Your task to perform on an android device: turn notification dots off Image 0: 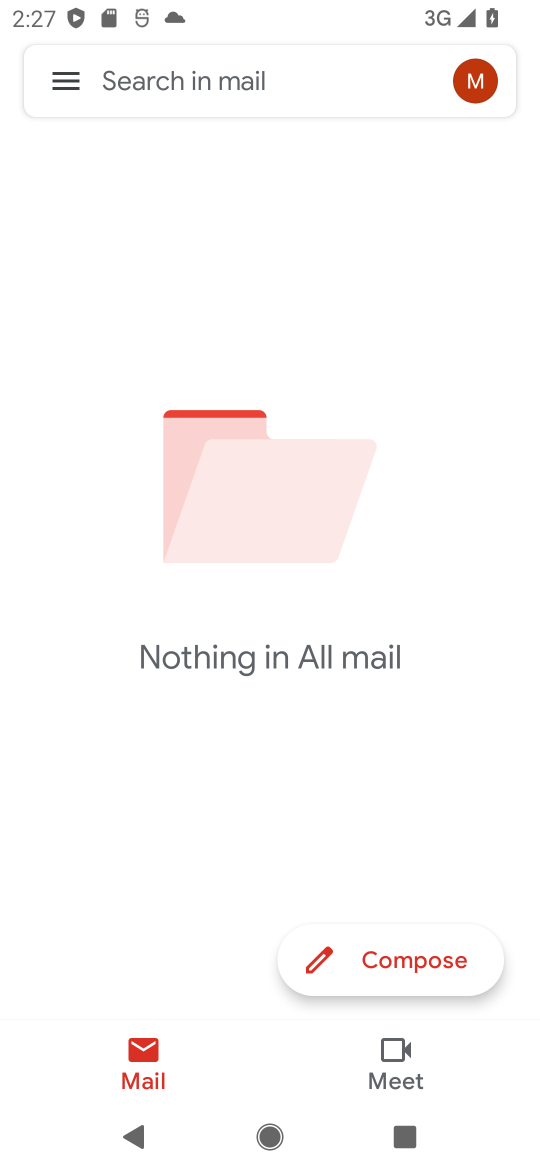
Step 0: press home button
Your task to perform on an android device: turn notification dots off Image 1: 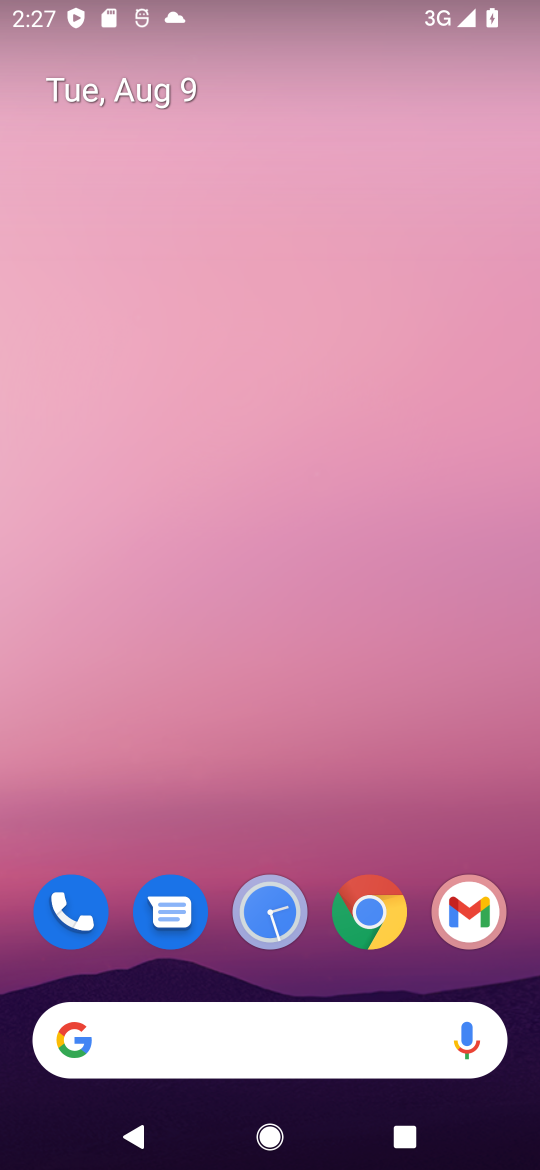
Step 1: drag from (307, 814) to (255, 14)
Your task to perform on an android device: turn notification dots off Image 2: 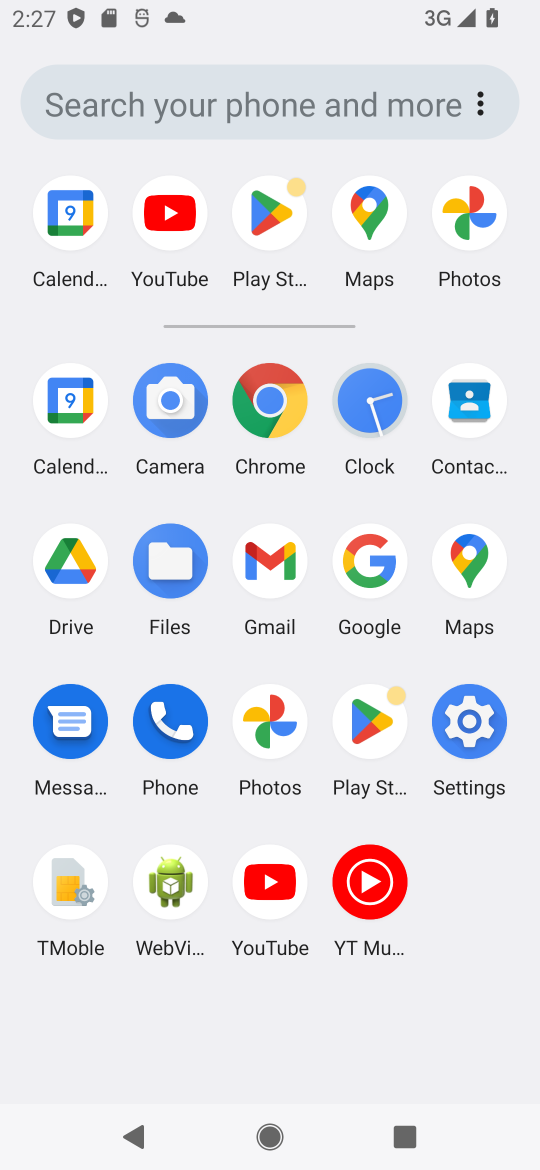
Step 2: click (468, 711)
Your task to perform on an android device: turn notification dots off Image 3: 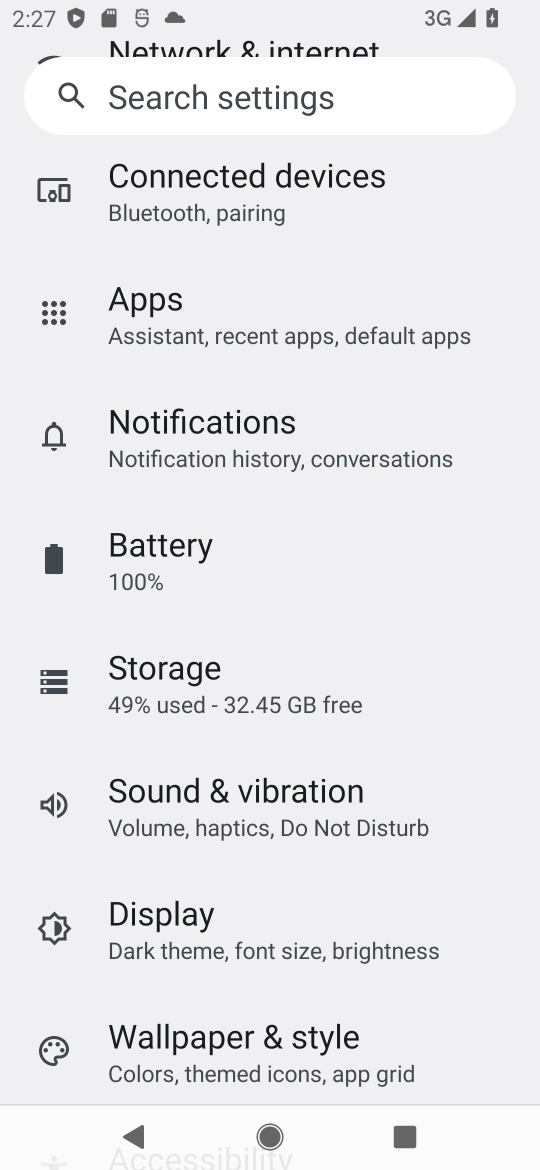
Step 3: click (242, 433)
Your task to perform on an android device: turn notification dots off Image 4: 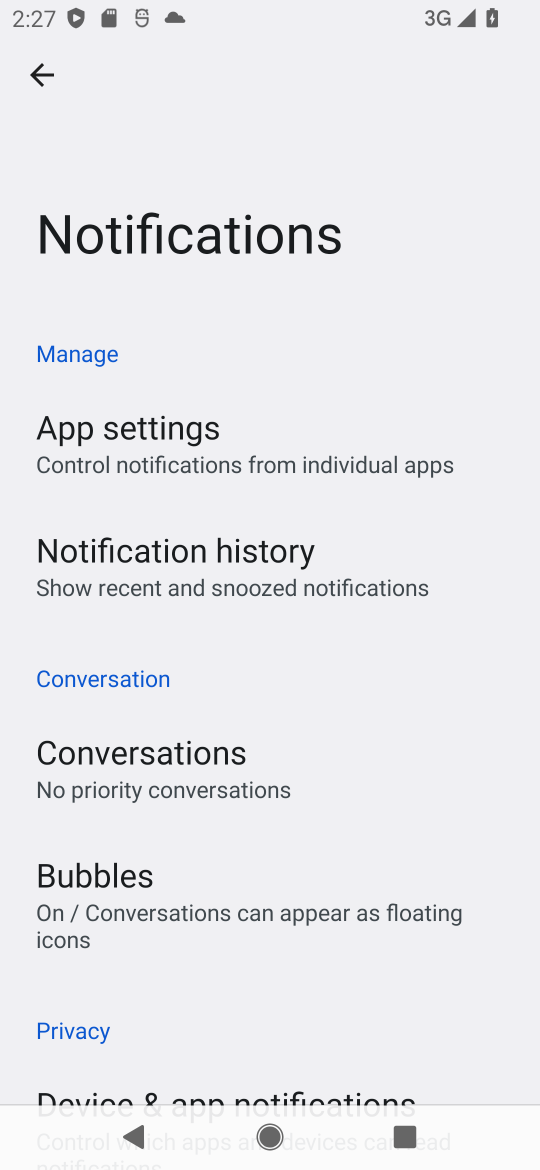
Step 4: drag from (303, 793) to (275, 355)
Your task to perform on an android device: turn notification dots off Image 5: 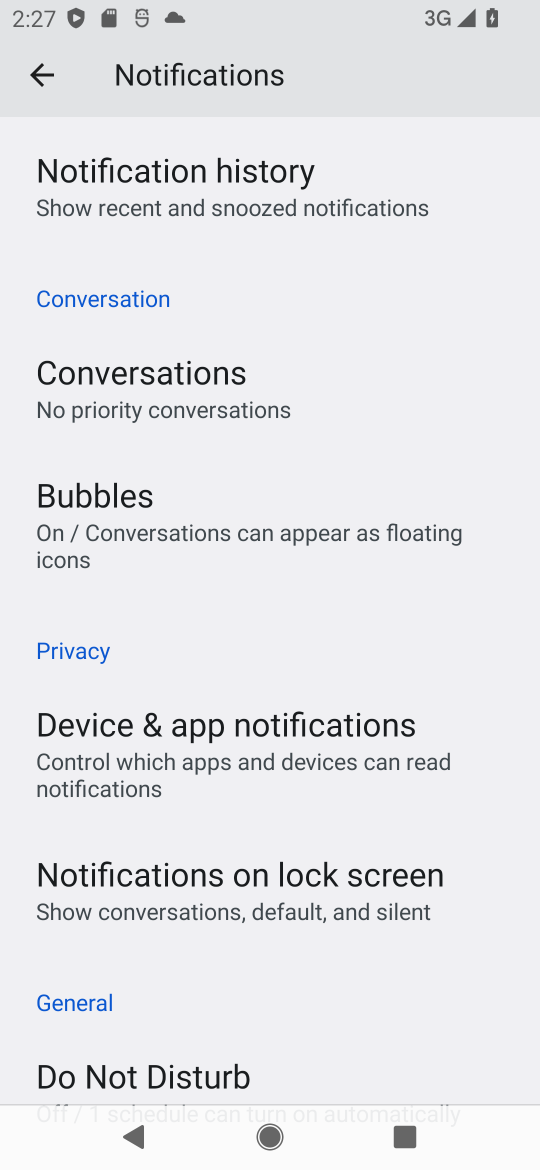
Step 5: drag from (338, 963) to (290, 423)
Your task to perform on an android device: turn notification dots off Image 6: 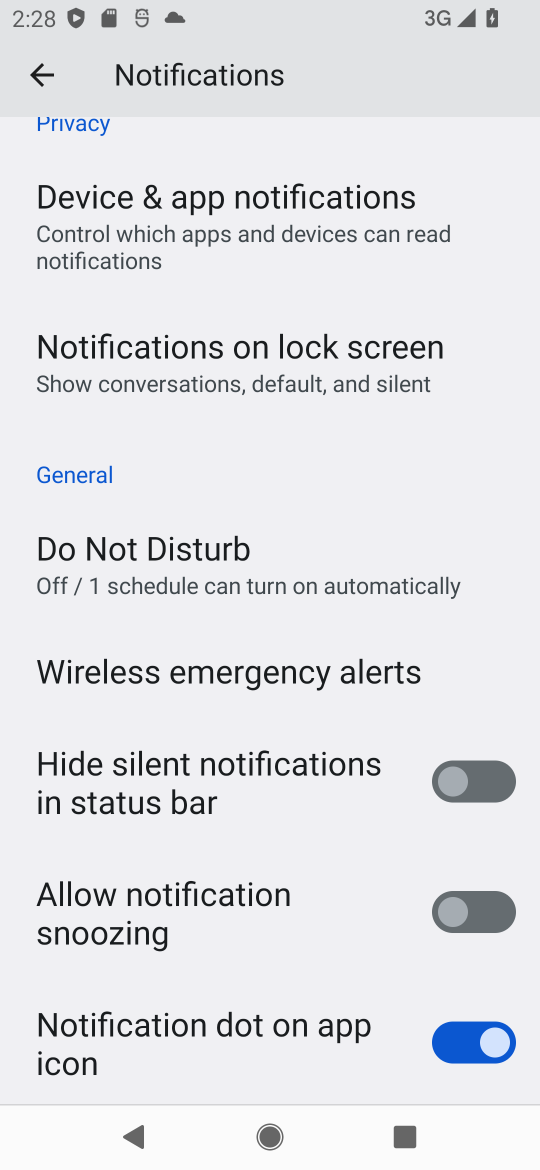
Step 6: click (485, 1040)
Your task to perform on an android device: turn notification dots off Image 7: 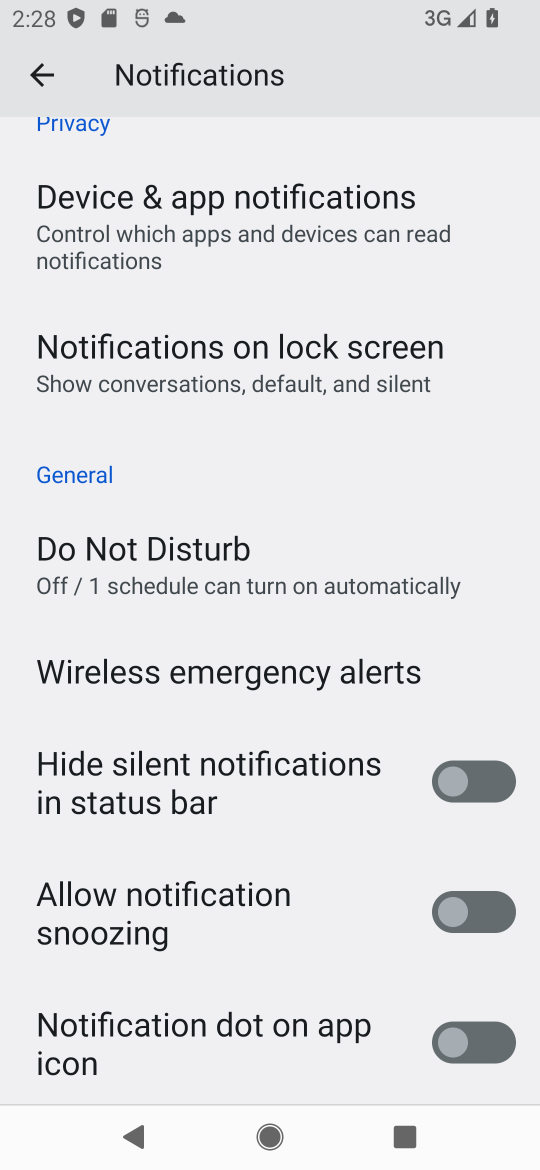
Step 7: task complete